Your task to perform on an android device: Do I have any events tomorrow? Image 0: 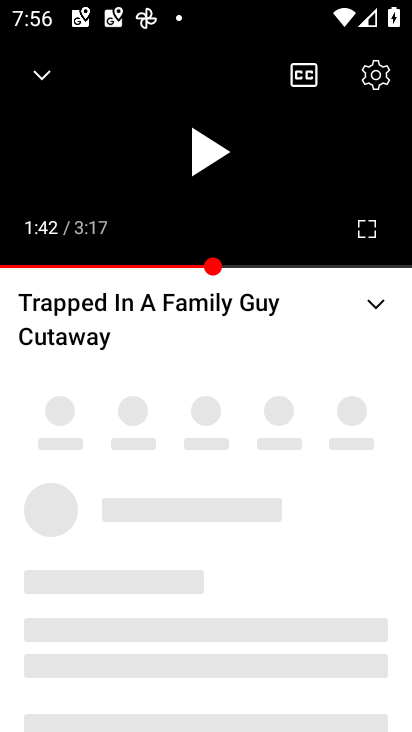
Step 0: press home button
Your task to perform on an android device: Do I have any events tomorrow? Image 1: 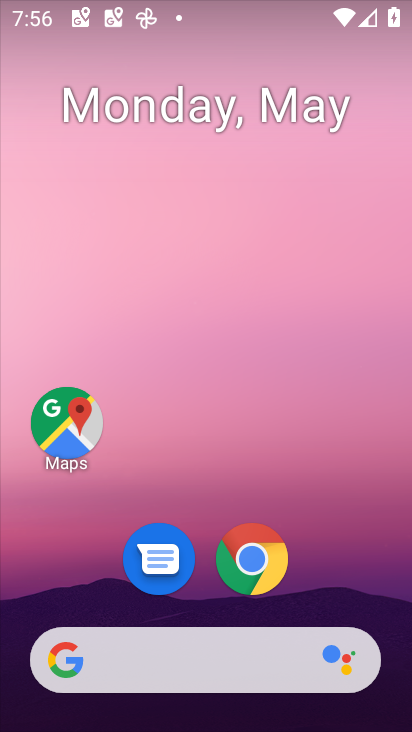
Step 1: drag from (392, 628) to (311, 136)
Your task to perform on an android device: Do I have any events tomorrow? Image 2: 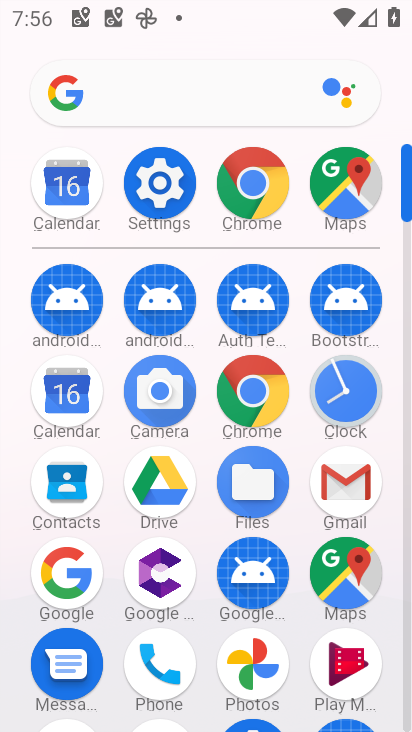
Step 2: click (66, 399)
Your task to perform on an android device: Do I have any events tomorrow? Image 3: 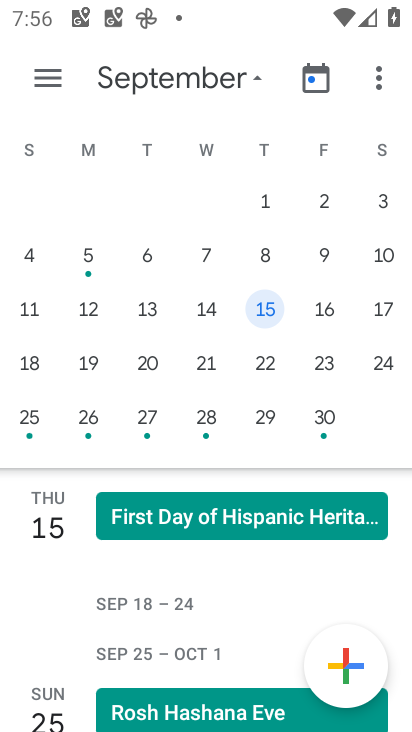
Step 3: click (44, 87)
Your task to perform on an android device: Do I have any events tomorrow? Image 4: 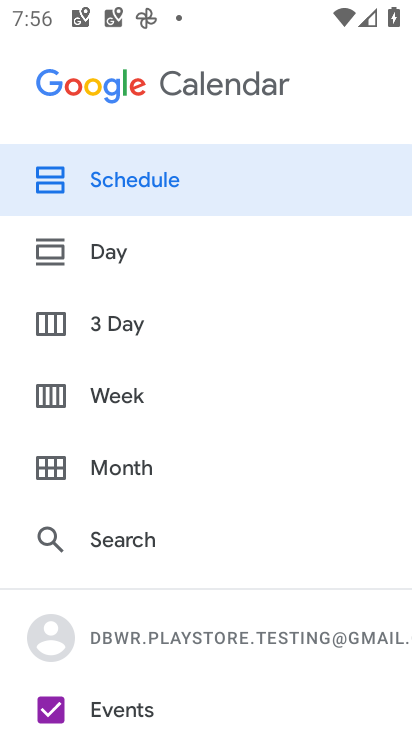
Step 4: click (153, 181)
Your task to perform on an android device: Do I have any events tomorrow? Image 5: 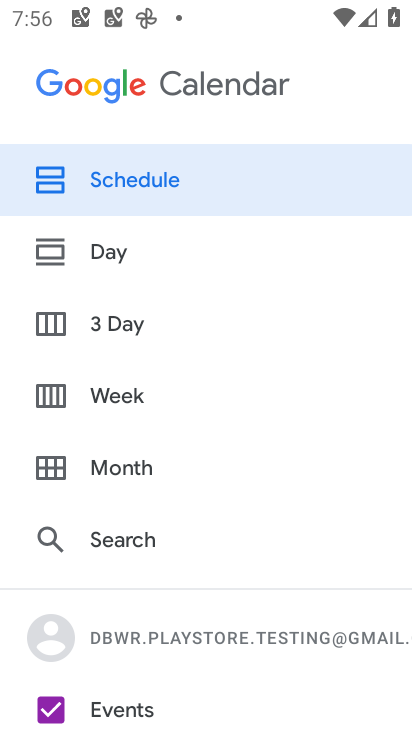
Step 5: click (153, 181)
Your task to perform on an android device: Do I have any events tomorrow? Image 6: 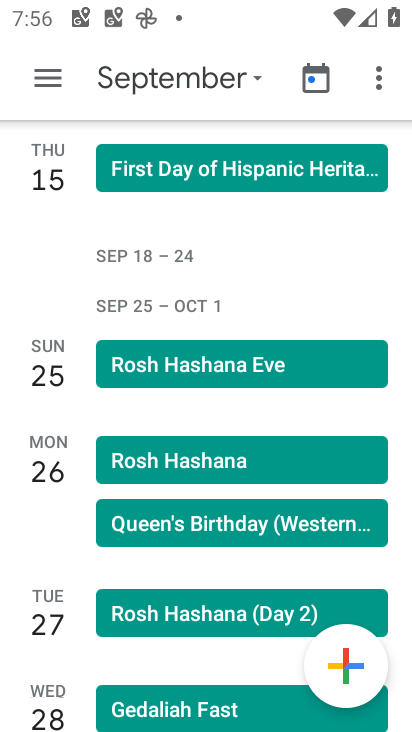
Step 6: task complete